Your task to perform on an android device: change keyboard looks Image 0: 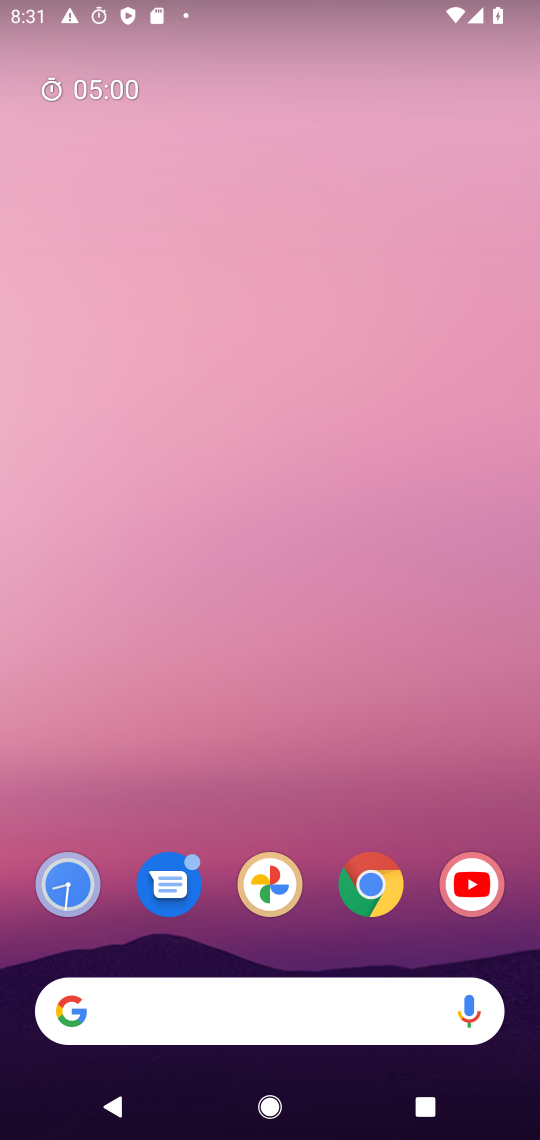
Step 0: press home button
Your task to perform on an android device: change keyboard looks Image 1: 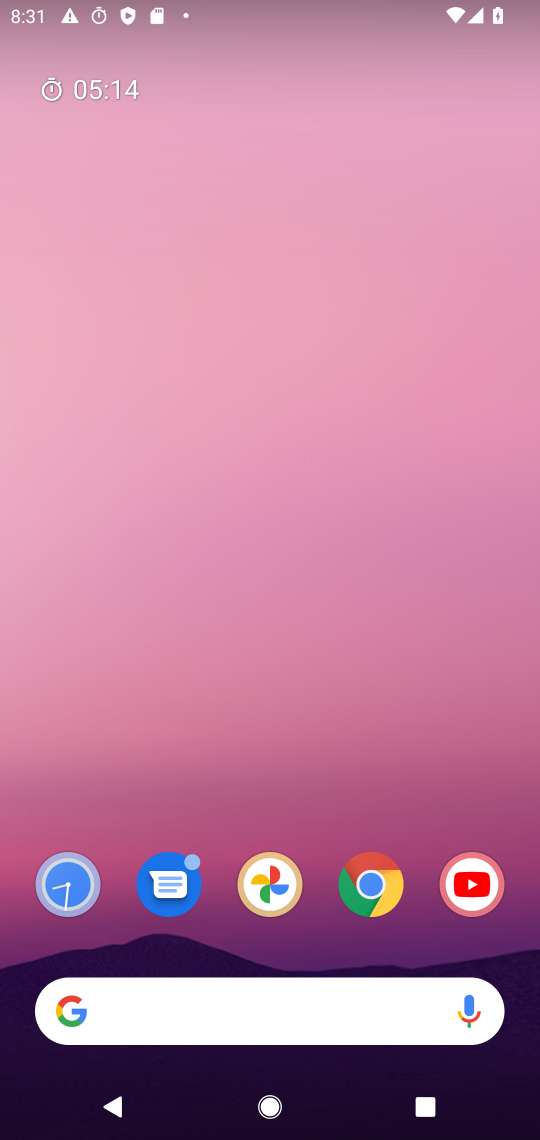
Step 1: drag from (309, 888) to (433, 343)
Your task to perform on an android device: change keyboard looks Image 2: 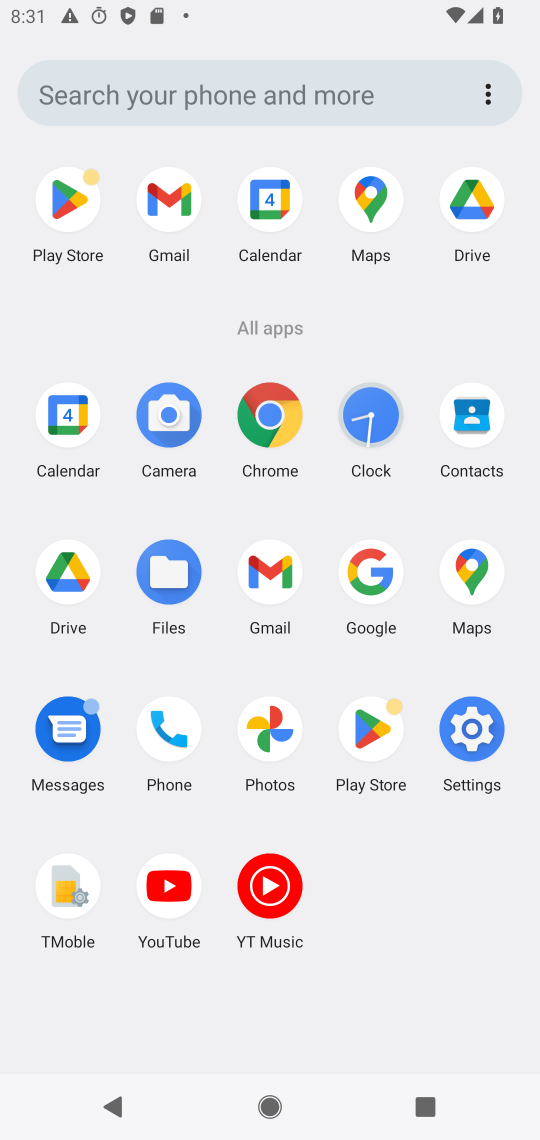
Step 2: click (454, 743)
Your task to perform on an android device: change keyboard looks Image 3: 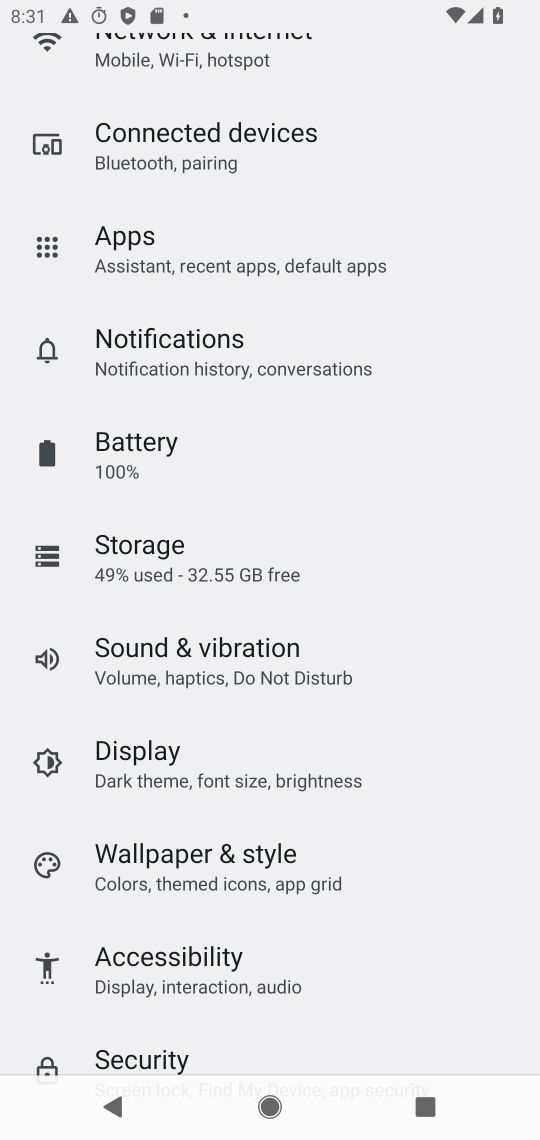
Step 3: drag from (318, 1012) to (486, 308)
Your task to perform on an android device: change keyboard looks Image 4: 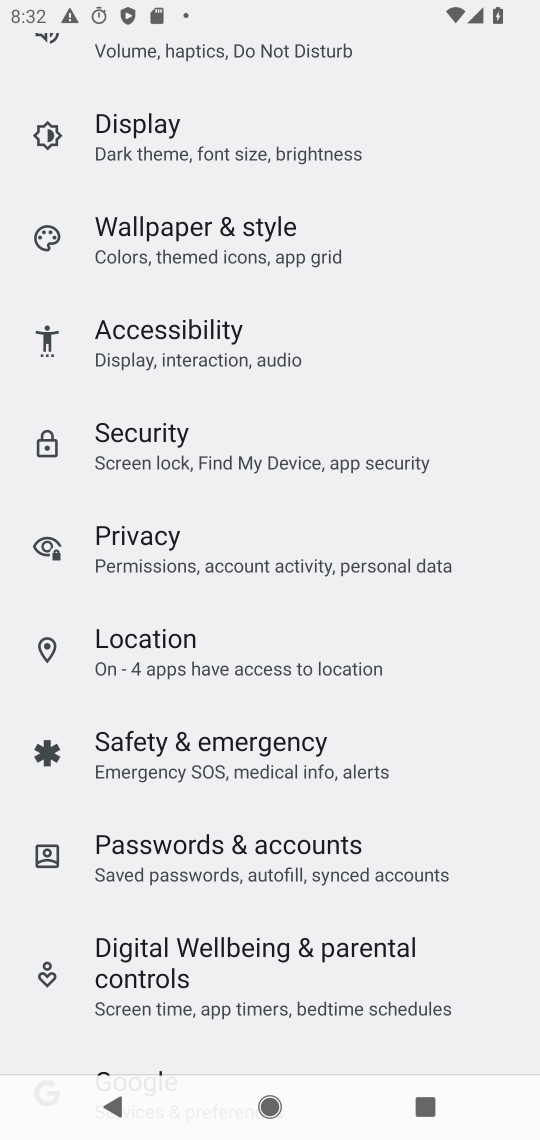
Step 4: drag from (391, 917) to (536, 382)
Your task to perform on an android device: change keyboard looks Image 5: 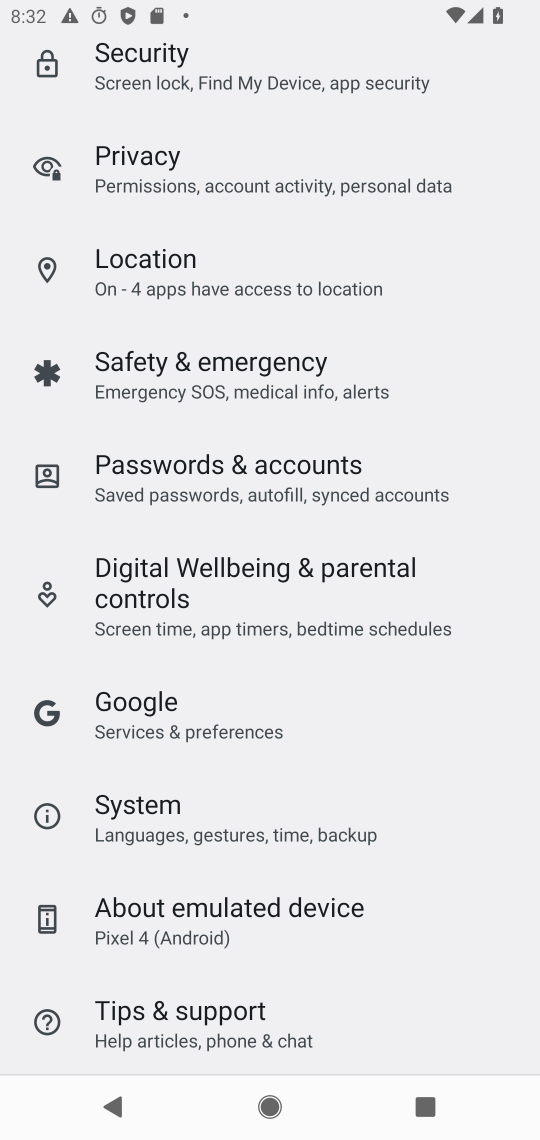
Step 5: click (204, 828)
Your task to perform on an android device: change keyboard looks Image 6: 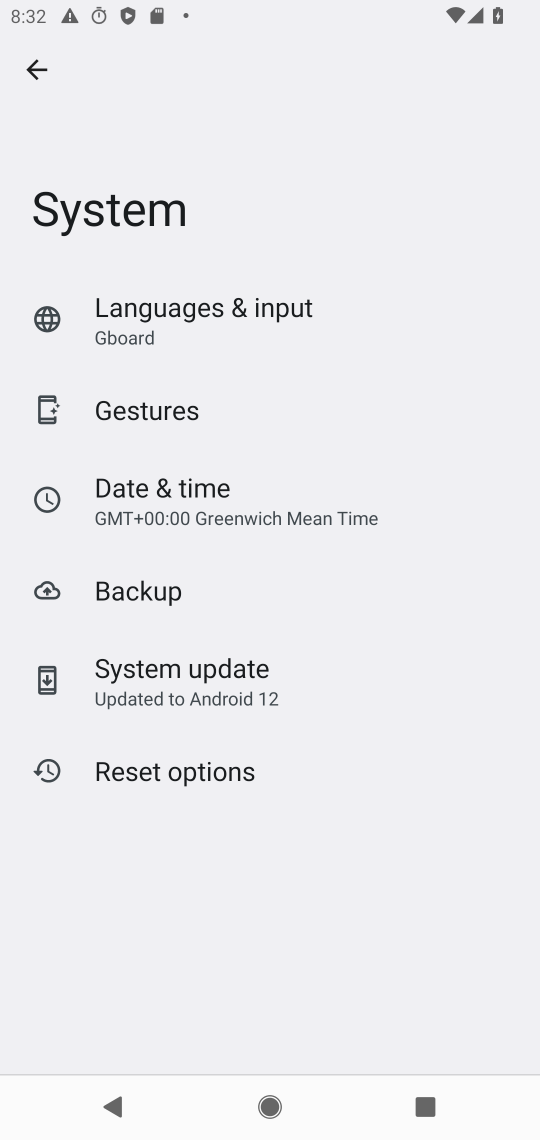
Step 6: click (154, 338)
Your task to perform on an android device: change keyboard looks Image 7: 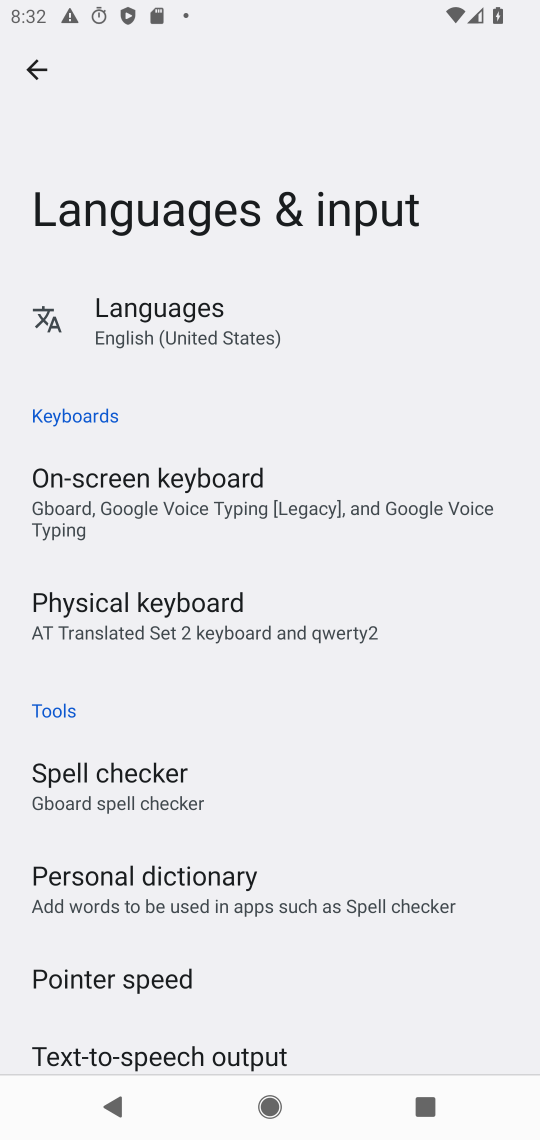
Step 7: click (177, 498)
Your task to perform on an android device: change keyboard looks Image 8: 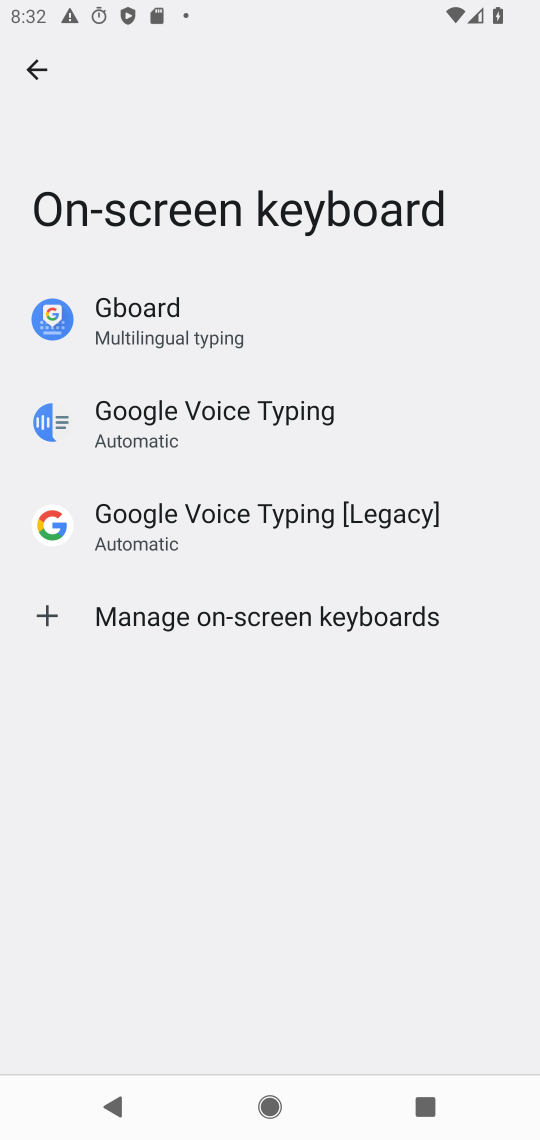
Step 8: click (135, 318)
Your task to perform on an android device: change keyboard looks Image 9: 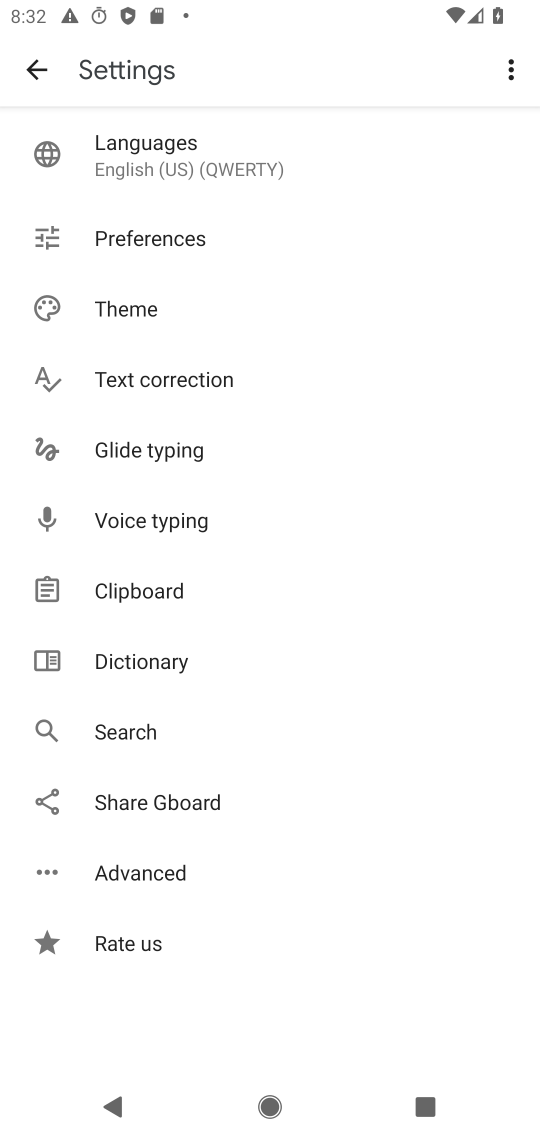
Step 9: click (135, 318)
Your task to perform on an android device: change keyboard looks Image 10: 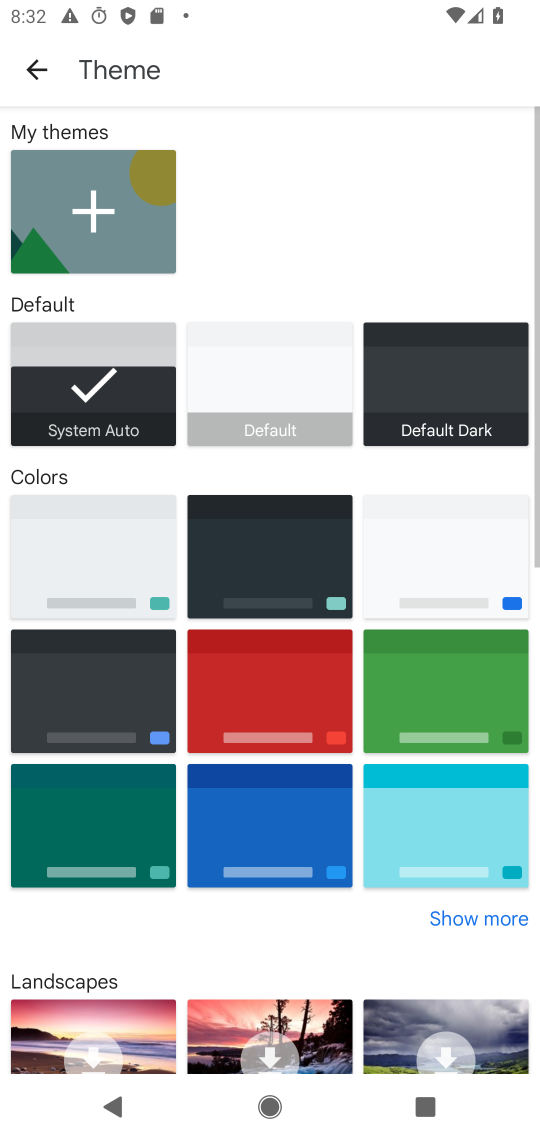
Step 10: click (259, 567)
Your task to perform on an android device: change keyboard looks Image 11: 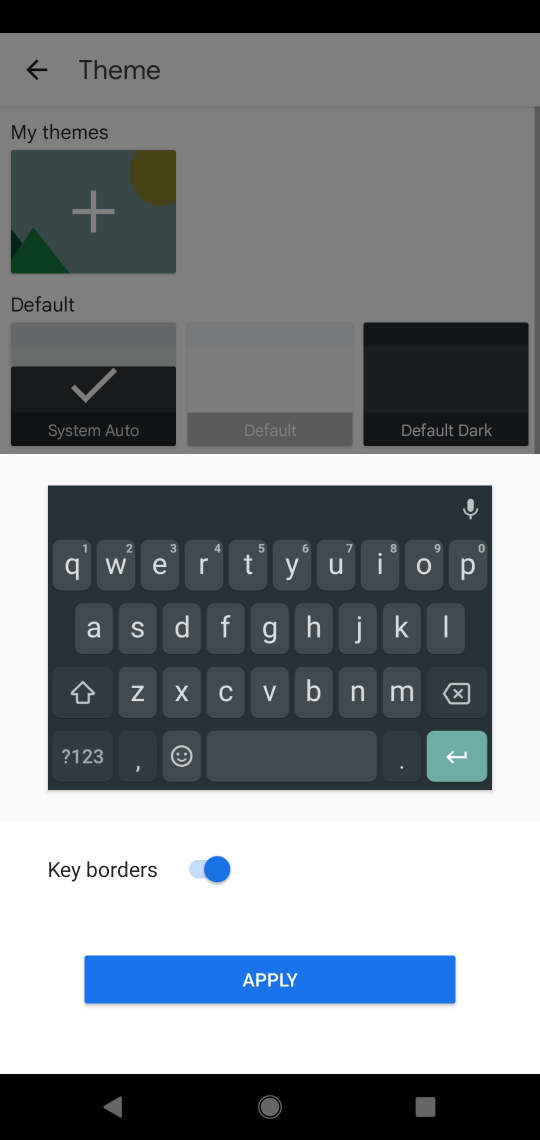
Step 11: click (201, 991)
Your task to perform on an android device: change keyboard looks Image 12: 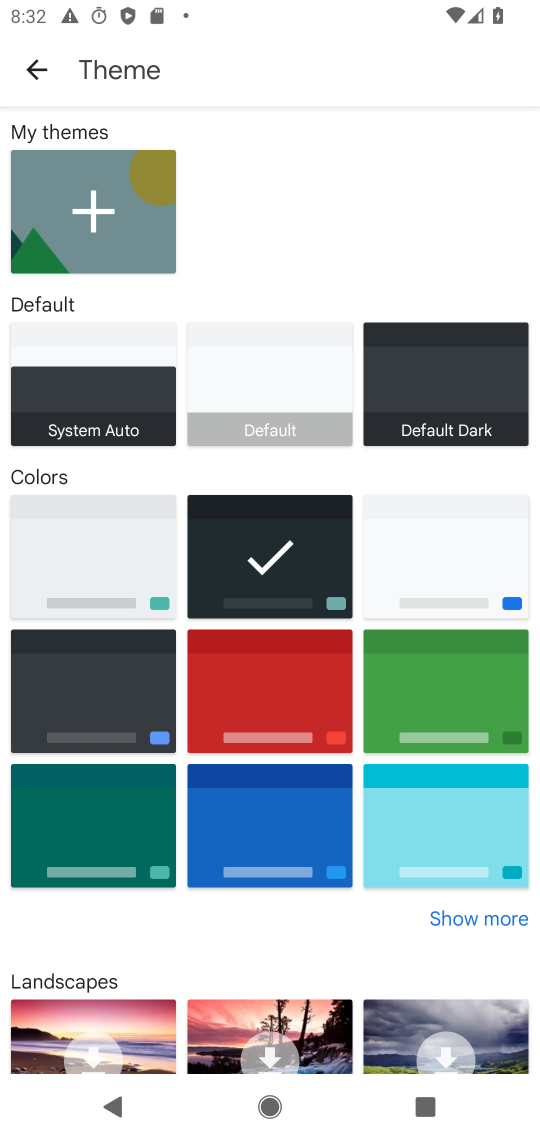
Step 12: task complete